Your task to perform on an android device: Go to eBay Image 0: 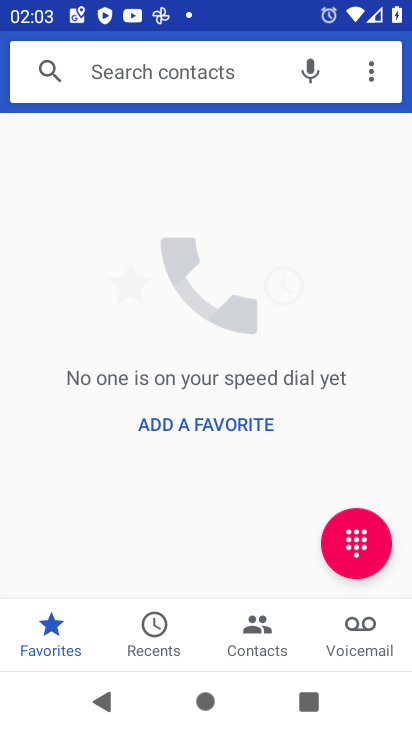
Step 0: press home button
Your task to perform on an android device: Go to eBay Image 1: 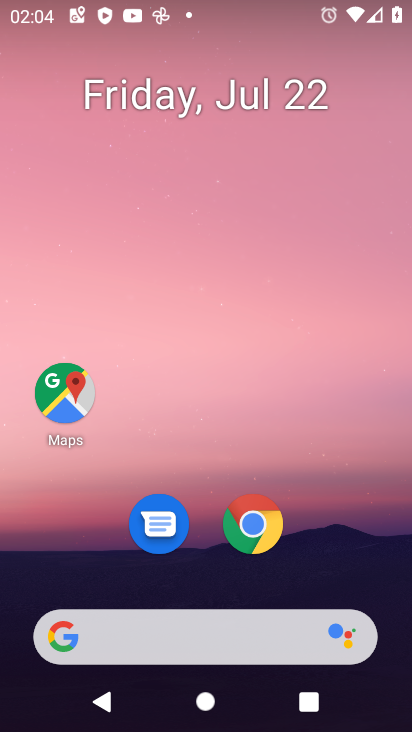
Step 1: click (245, 522)
Your task to perform on an android device: Go to eBay Image 2: 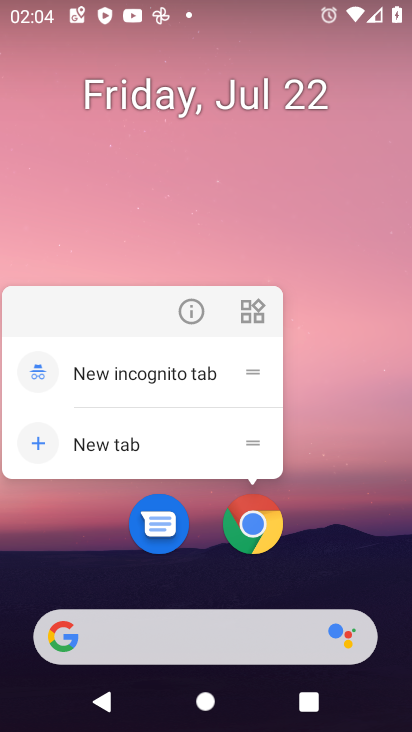
Step 2: click (256, 524)
Your task to perform on an android device: Go to eBay Image 3: 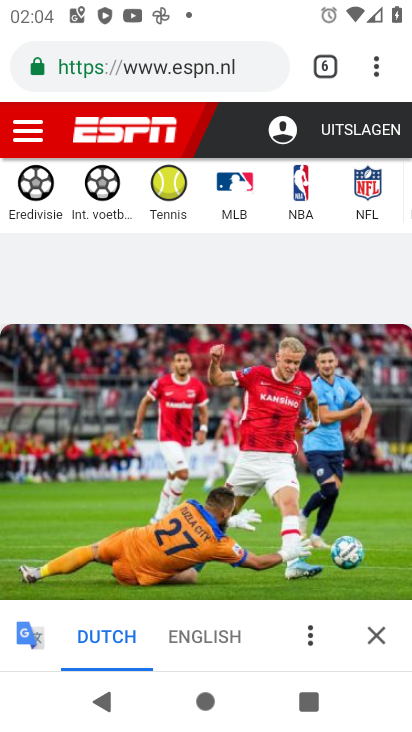
Step 3: drag from (372, 73) to (327, 151)
Your task to perform on an android device: Go to eBay Image 4: 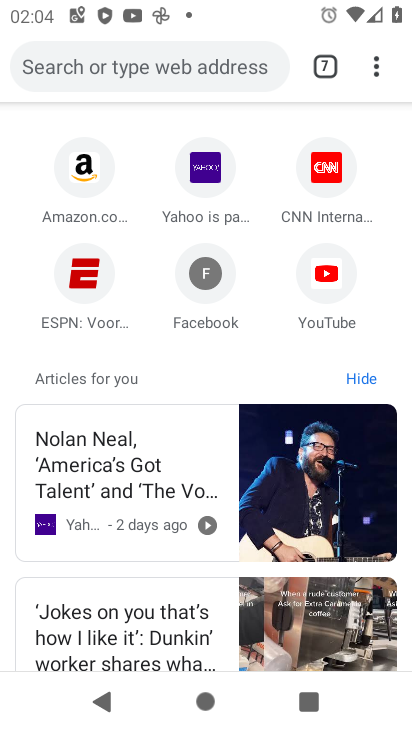
Step 4: click (105, 73)
Your task to perform on an android device: Go to eBay Image 5: 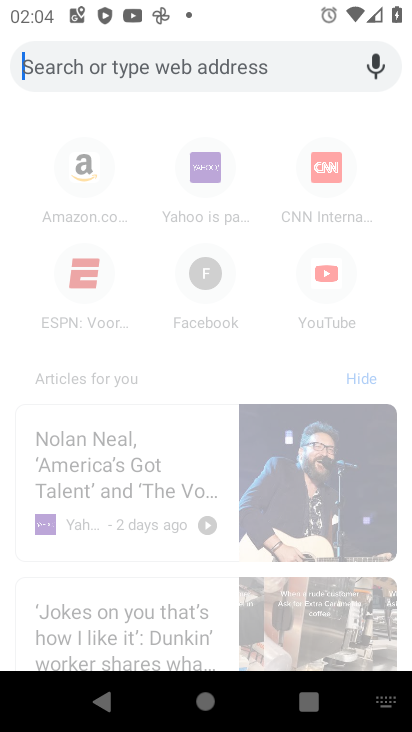
Step 5: type "ebay"
Your task to perform on an android device: Go to eBay Image 6: 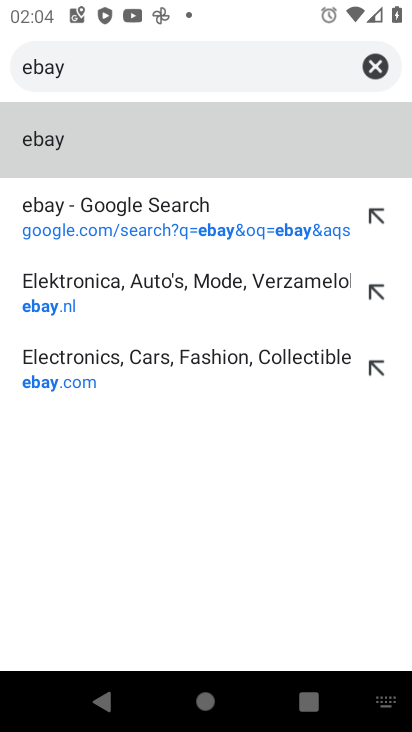
Step 6: click (132, 138)
Your task to perform on an android device: Go to eBay Image 7: 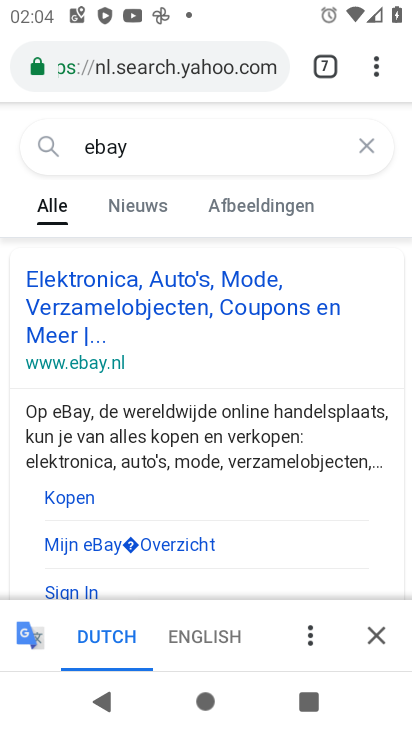
Step 7: click (212, 641)
Your task to perform on an android device: Go to eBay Image 8: 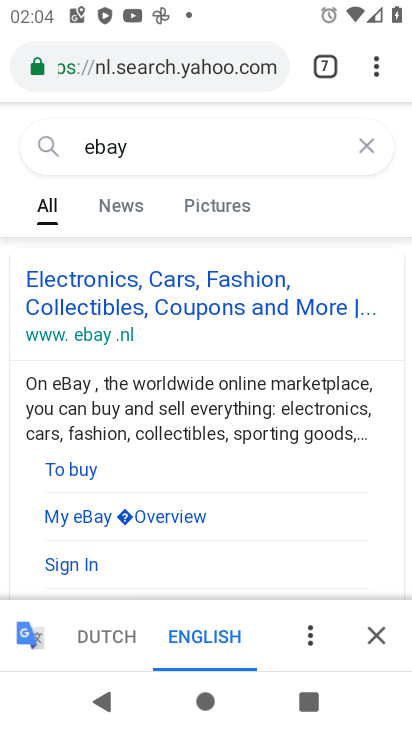
Step 8: click (197, 286)
Your task to perform on an android device: Go to eBay Image 9: 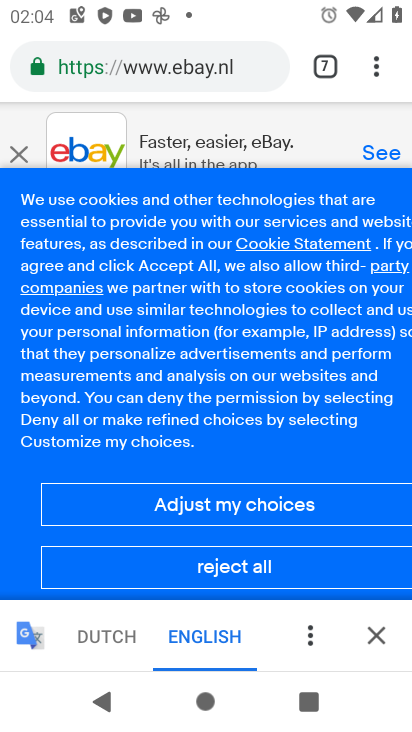
Step 9: drag from (120, 423) to (216, 194)
Your task to perform on an android device: Go to eBay Image 10: 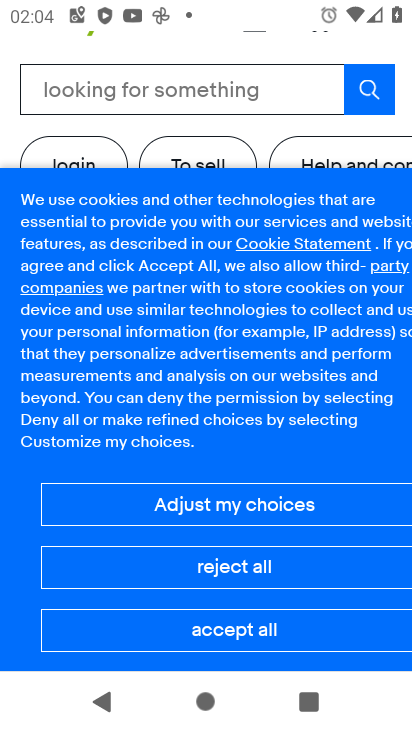
Step 10: click (232, 635)
Your task to perform on an android device: Go to eBay Image 11: 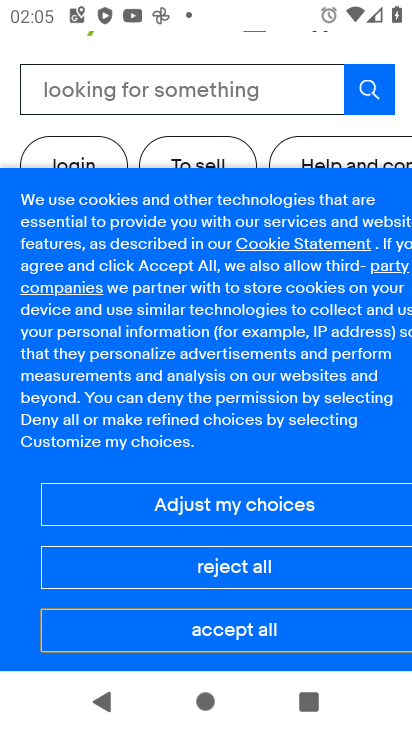
Step 11: click (206, 626)
Your task to perform on an android device: Go to eBay Image 12: 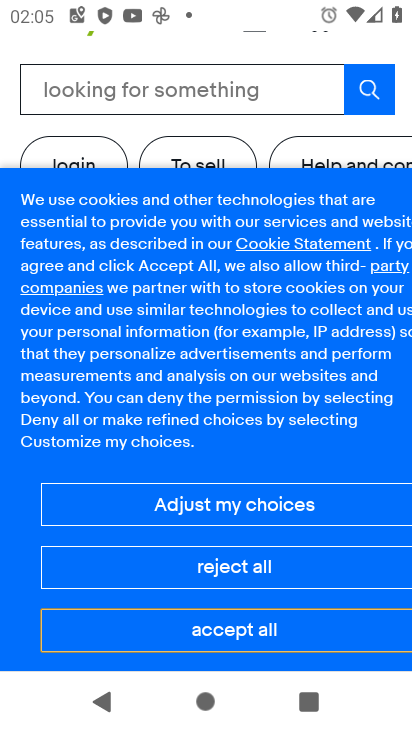
Step 12: click (242, 638)
Your task to perform on an android device: Go to eBay Image 13: 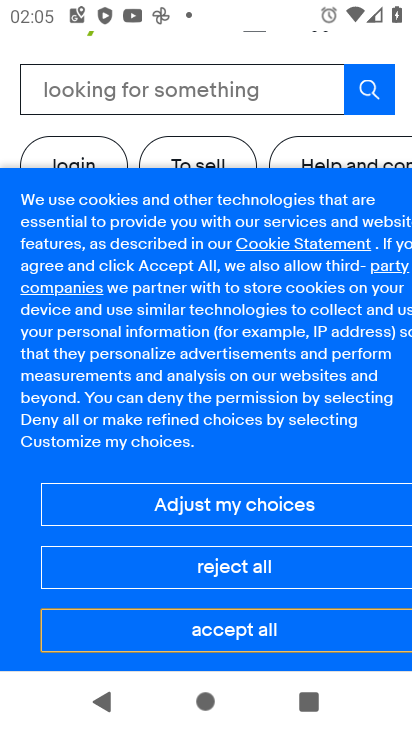
Step 13: task complete